Your task to perform on an android device: Open location settings Image 0: 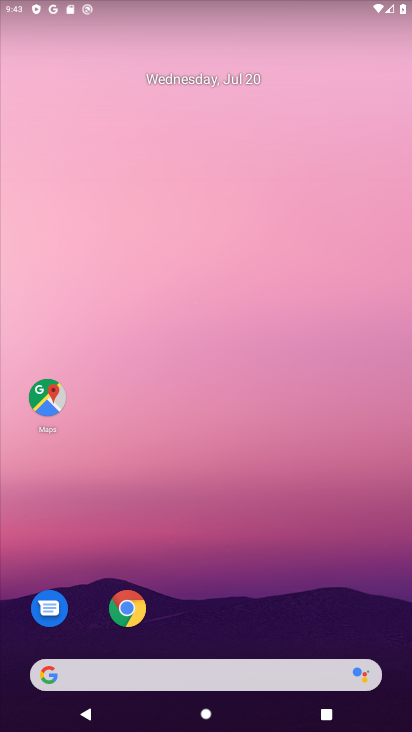
Step 0: press home button
Your task to perform on an android device: Open location settings Image 1: 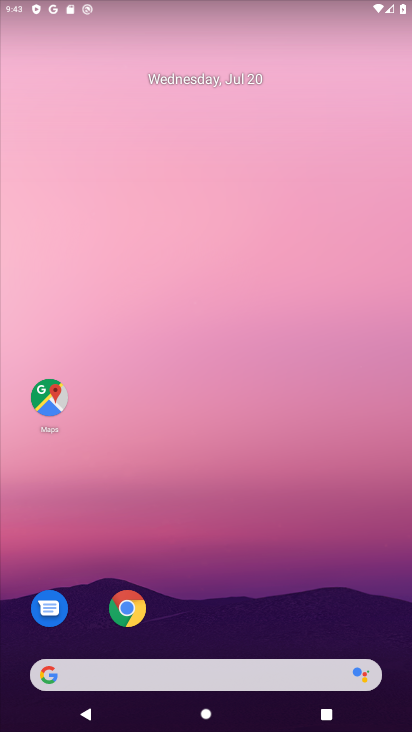
Step 1: drag from (220, 641) to (258, 71)
Your task to perform on an android device: Open location settings Image 2: 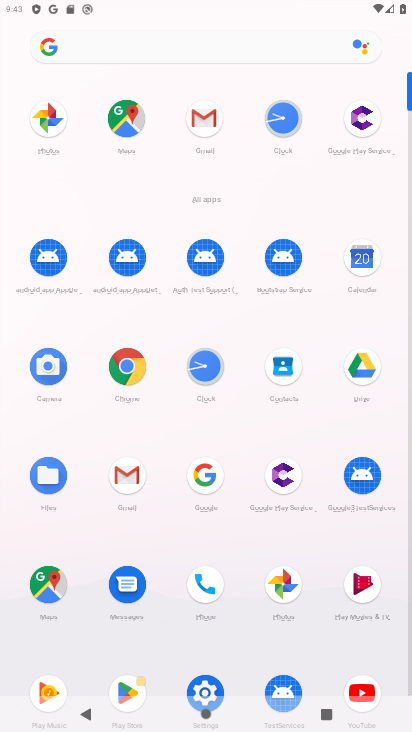
Step 2: click (202, 684)
Your task to perform on an android device: Open location settings Image 3: 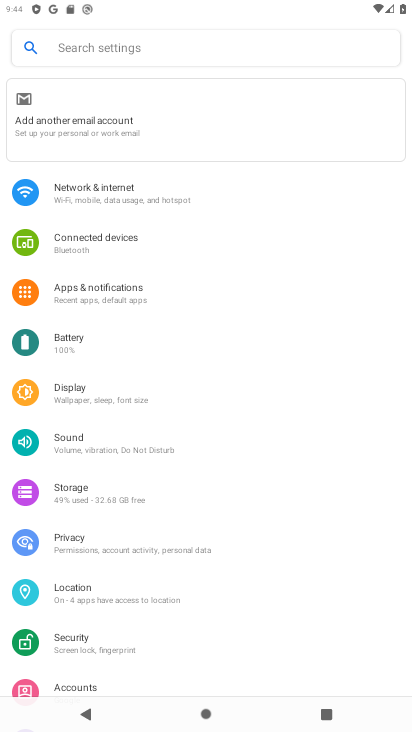
Step 3: click (102, 584)
Your task to perform on an android device: Open location settings Image 4: 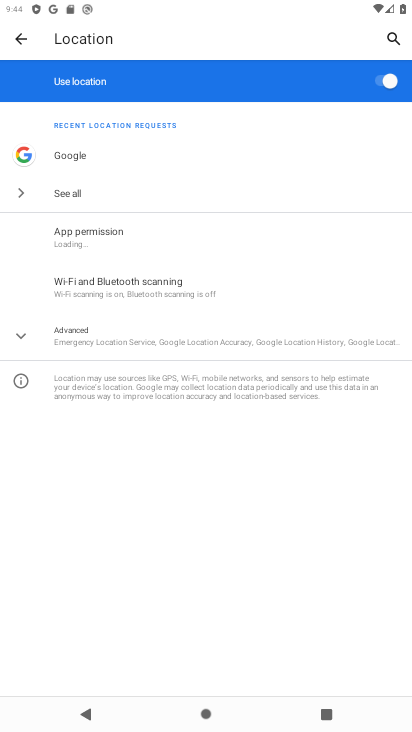
Step 4: click (23, 334)
Your task to perform on an android device: Open location settings Image 5: 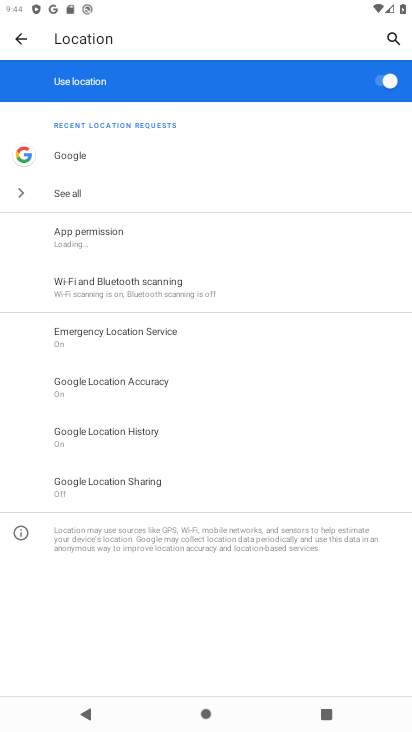
Step 5: task complete